Your task to perform on an android device: Search for pizza restaurants on Maps Image 0: 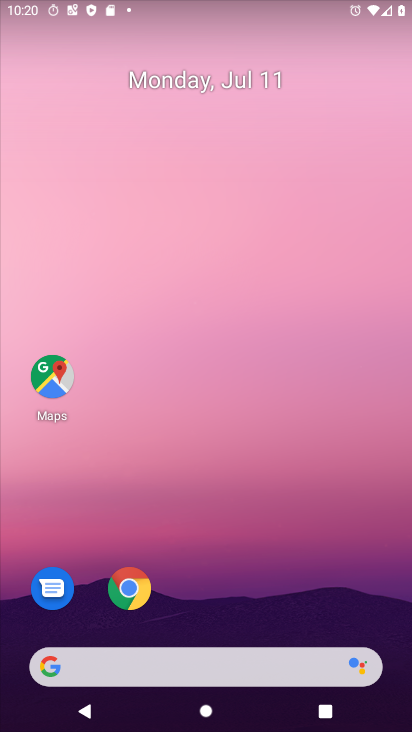
Step 0: click (55, 374)
Your task to perform on an android device: Search for pizza restaurants on Maps Image 1: 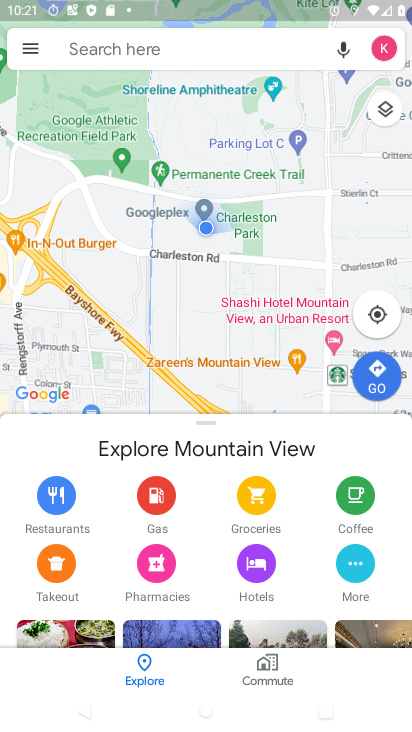
Step 1: click (145, 49)
Your task to perform on an android device: Search for pizza restaurants on Maps Image 2: 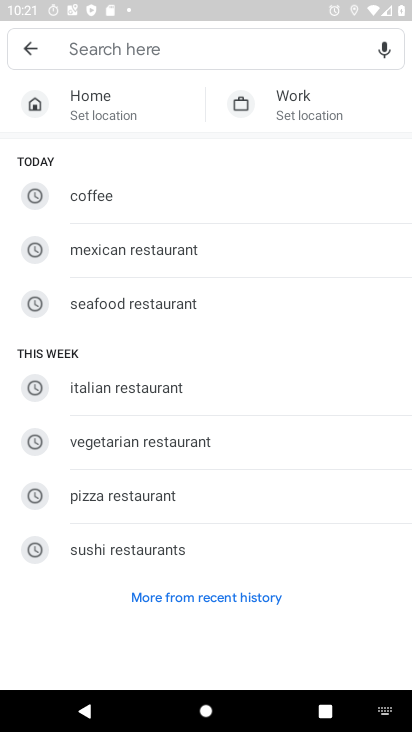
Step 2: click (102, 499)
Your task to perform on an android device: Search for pizza restaurants on Maps Image 3: 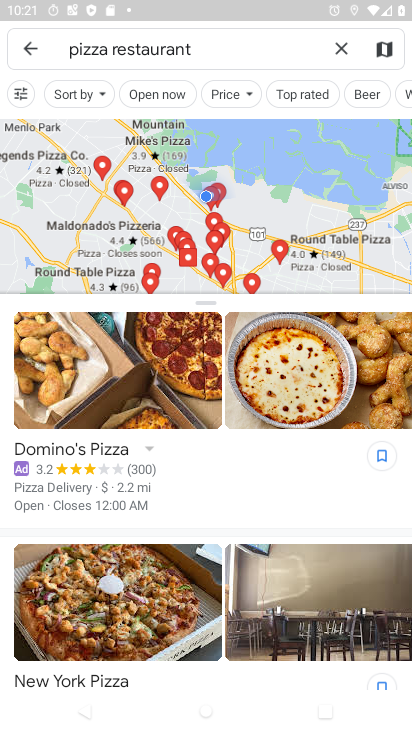
Step 3: task complete